Your task to perform on an android device: check storage Image 0: 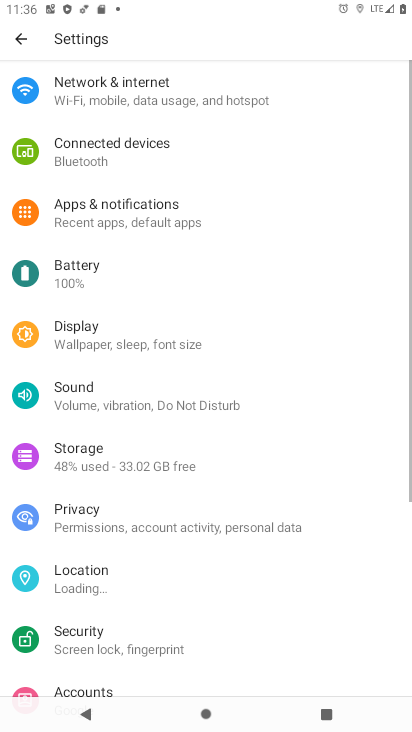
Step 0: press home button
Your task to perform on an android device: check storage Image 1: 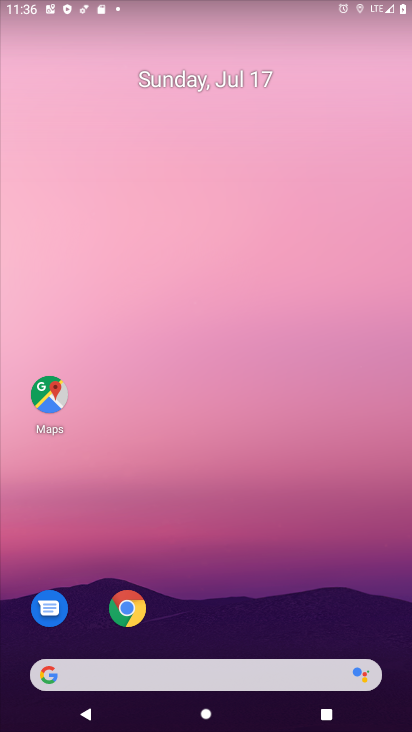
Step 1: drag from (209, 650) to (194, 12)
Your task to perform on an android device: check storage Image 2: 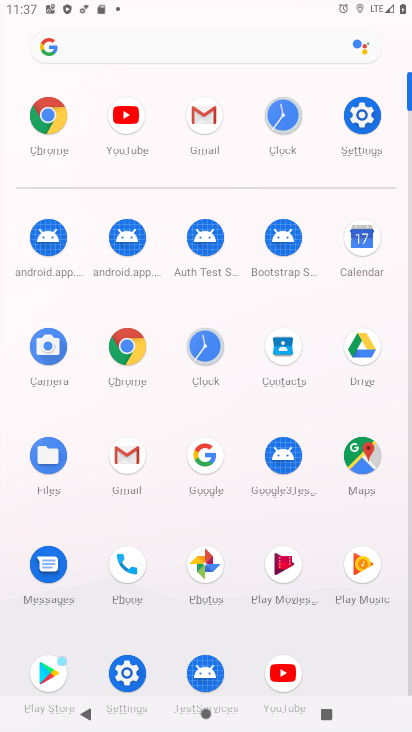
Step 2: click (363, 115)
Your task to perform on an android device: check storage Image 3: 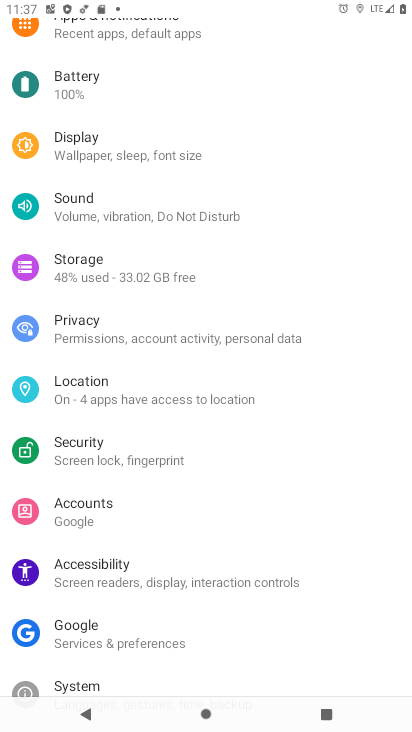
Step 3: click (87, 256)
Your task to perform on an android device: check storage Image 4: 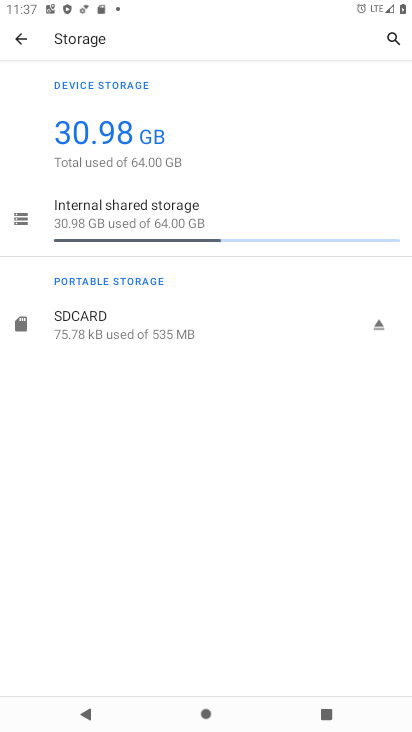
Step 4: task complete